Your task to perform on an android device: What is the recent news? Image 0: 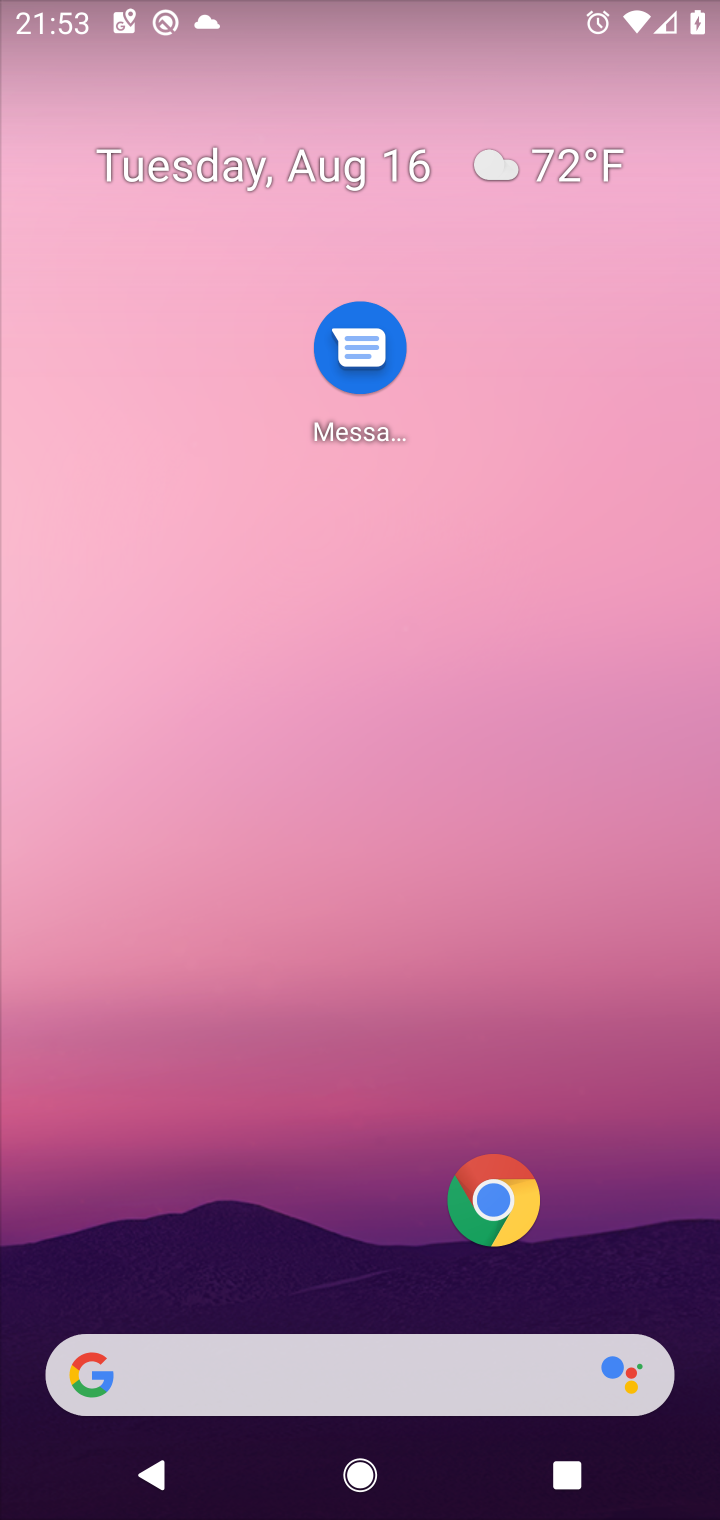
Step 0: drag from (132, 1224) to (443, 752)
Your task to perform on an android device: What is the recent news? Image 1: 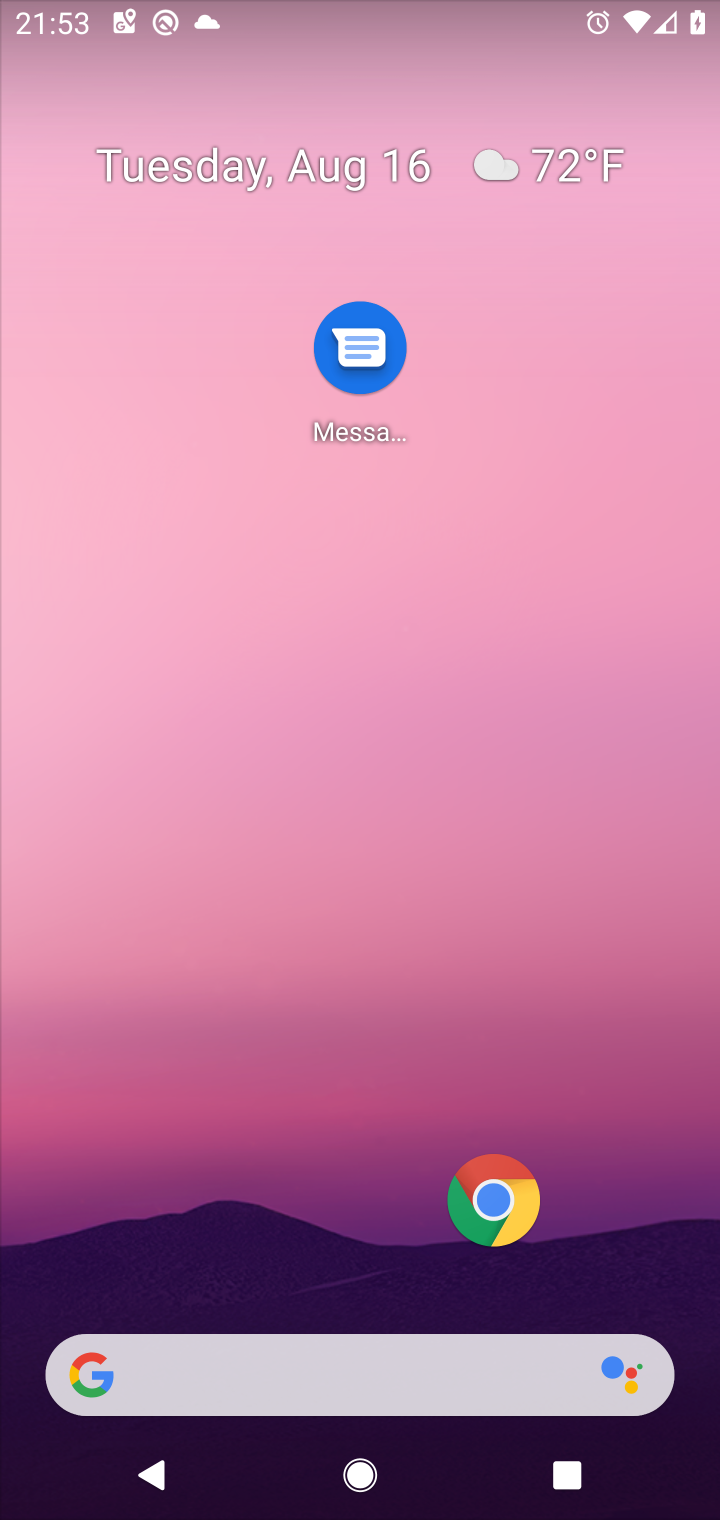
Step 1: drag from (75, 1484) to (579, 553)
Your task to perform on an android device: What is the recent news? Image 2: 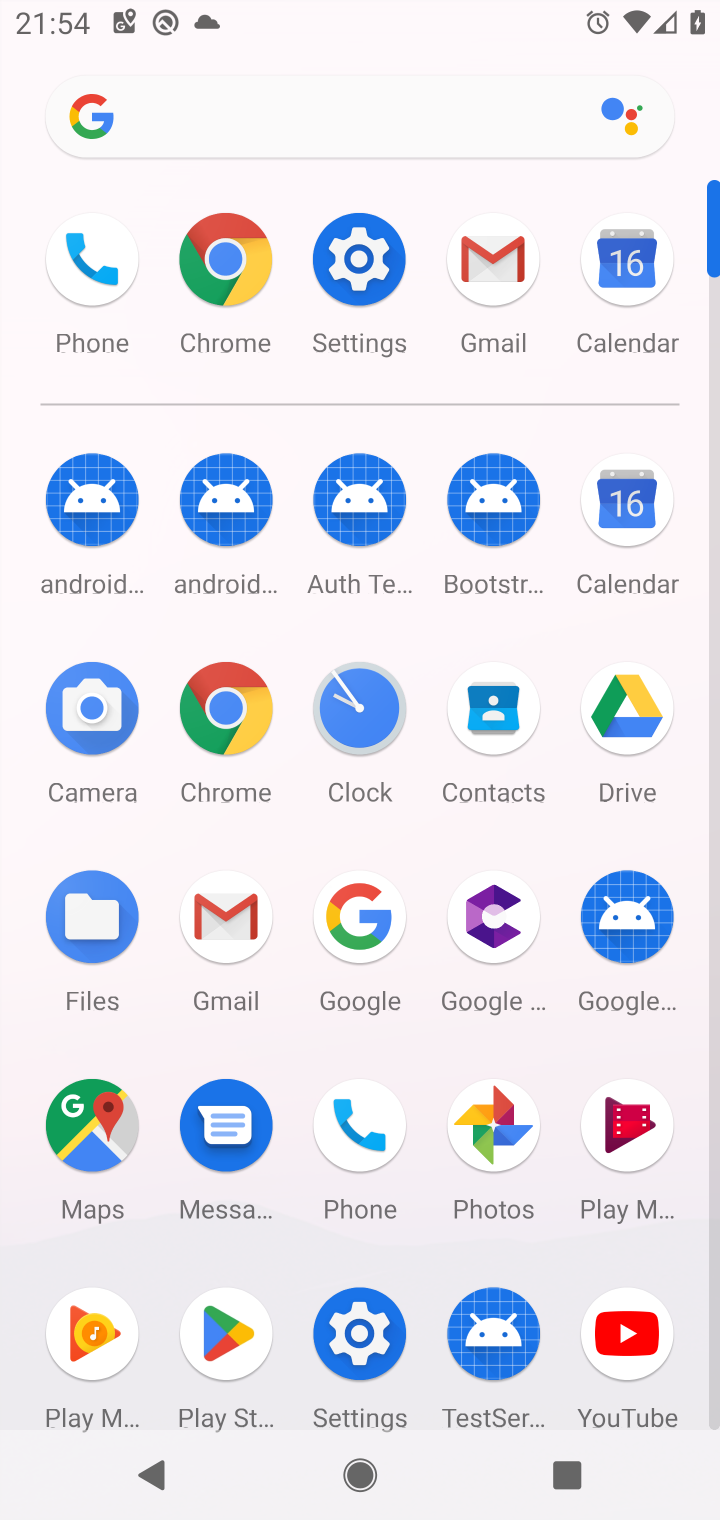
Step 2: click (217, 117)
Your task to perform on an android device: What is the recent news? Image 3: 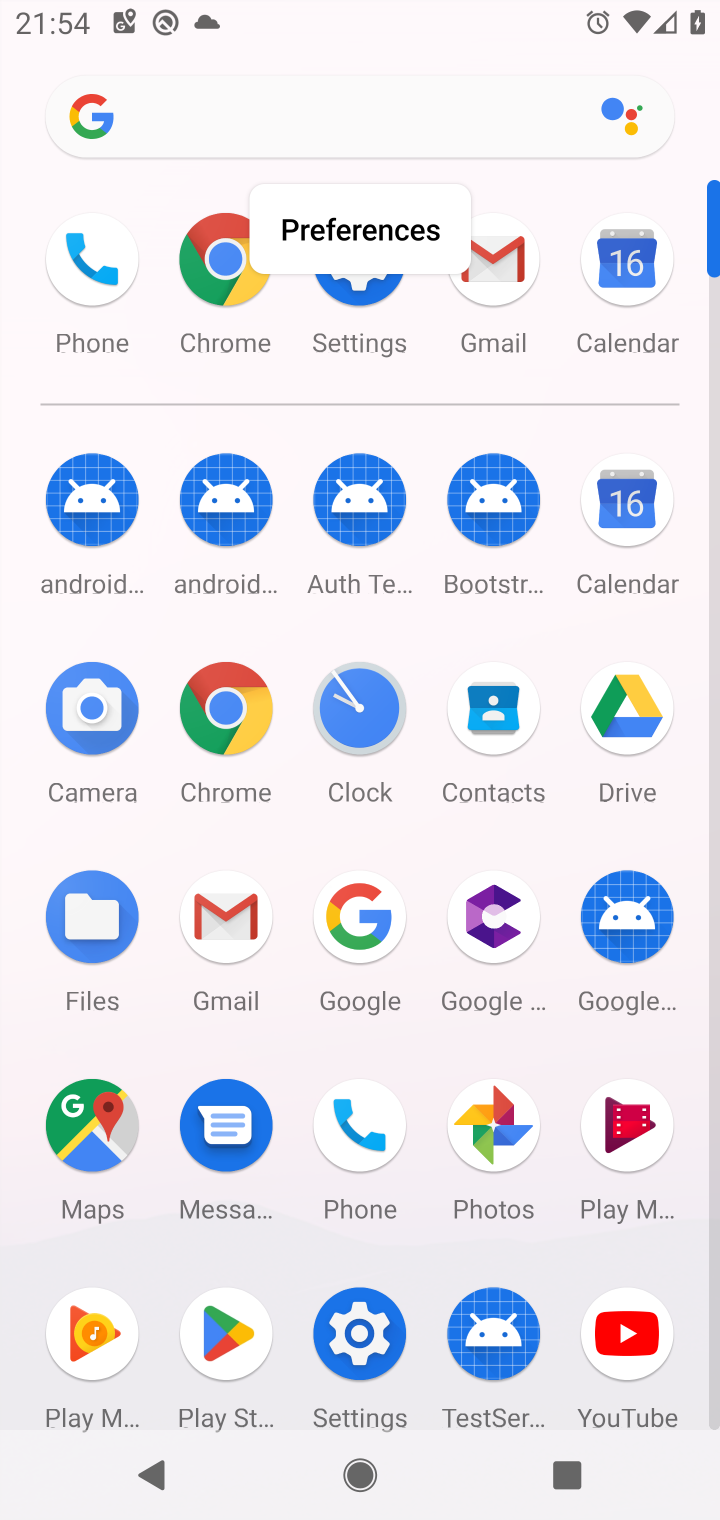
Step 3: click (252, 104)
Your task to perform on an android device: What is the recent news? Image 4: 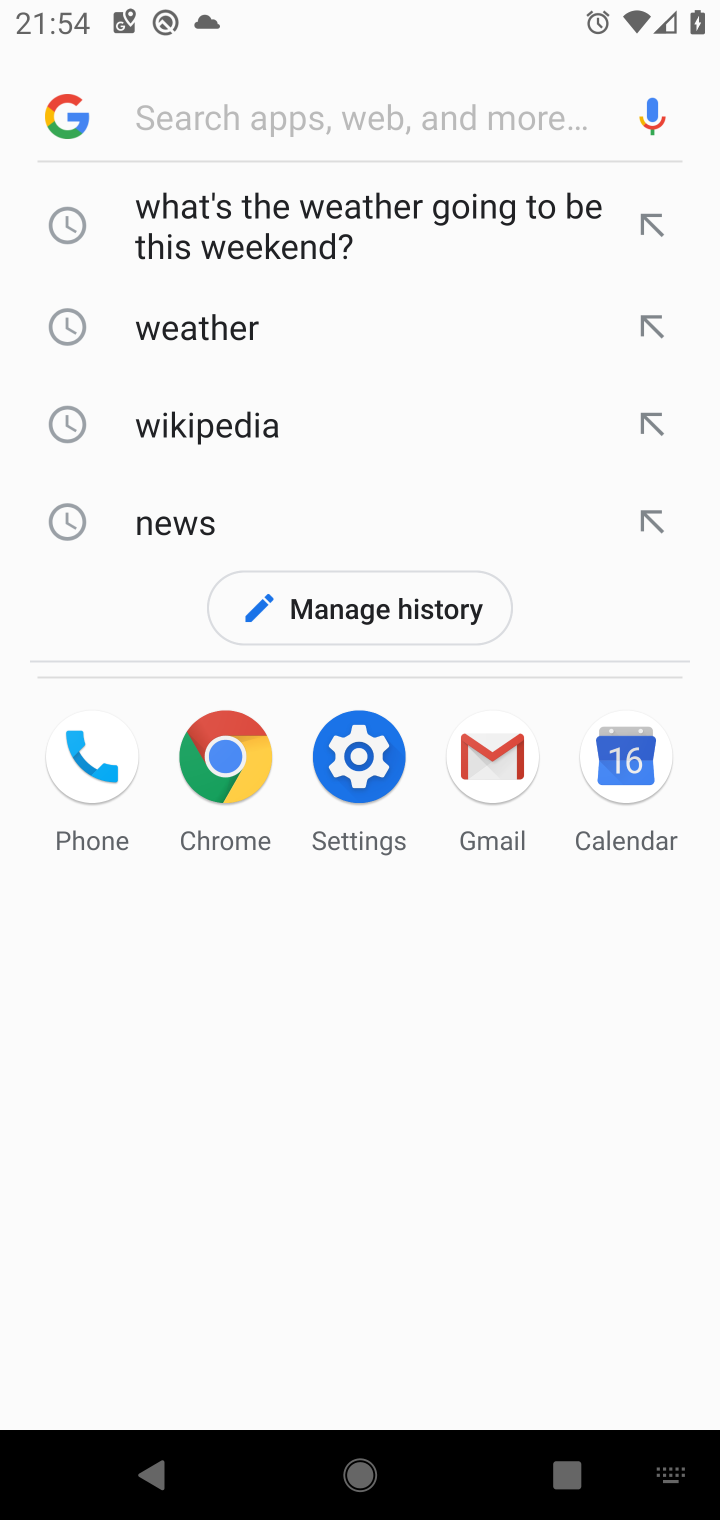
Step 4: type "What is the recent news?"
Your task to perform on an android device: What is the recent news? Image 5: 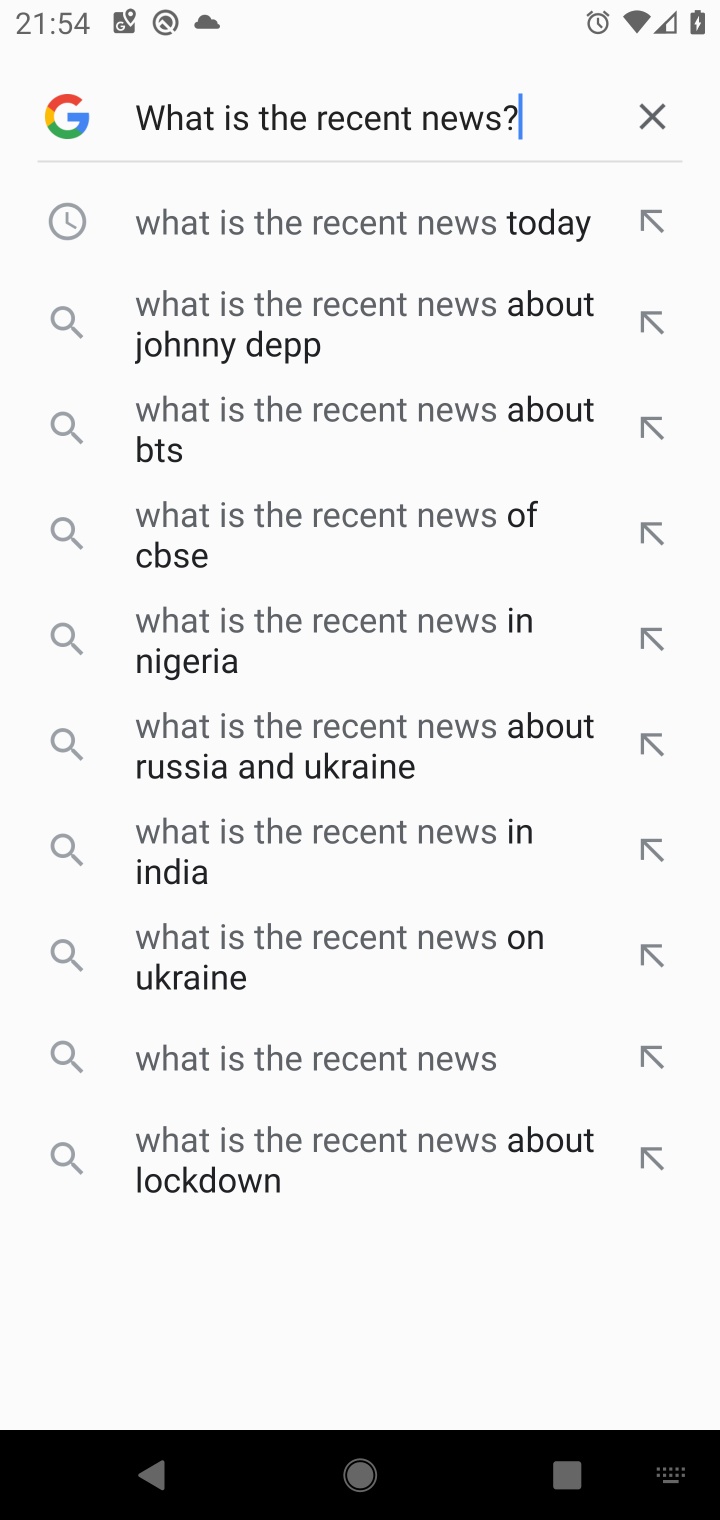
Step 5: type ""
Your task to perform on an android device: What is the recent news? Image 6: 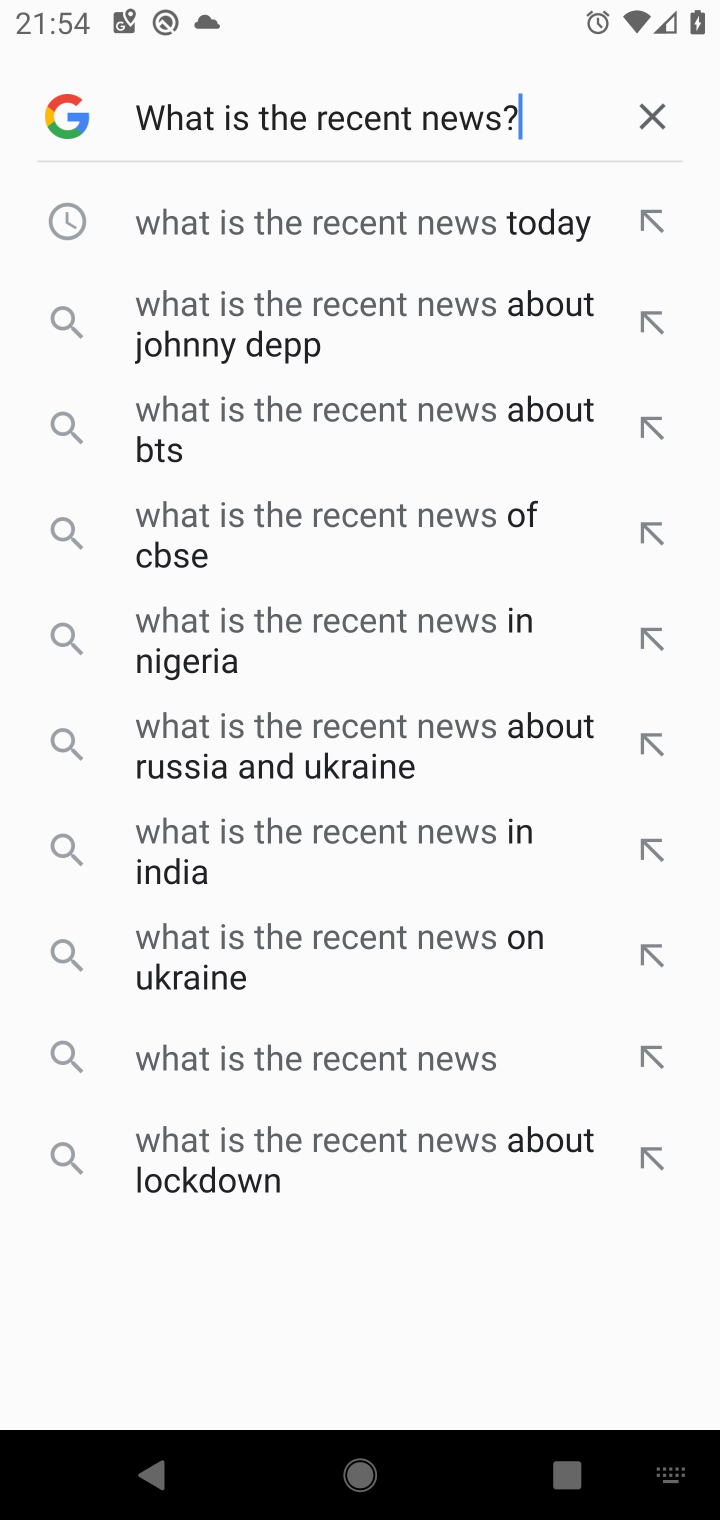
Step 6: type ""
Your task to perform on an android device: What is the recent news? Image 7: 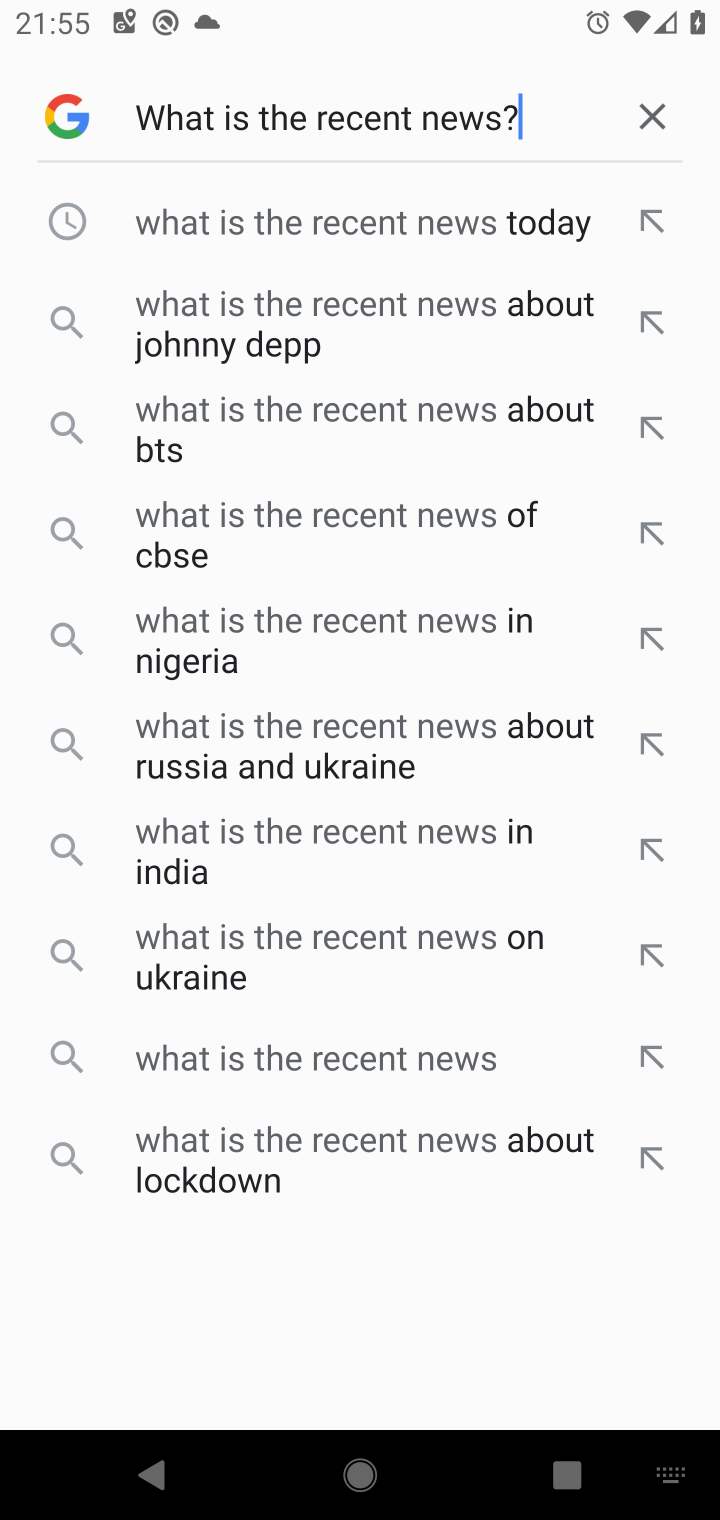
Step 7: task complete